Your task to perform on an android device: Go to battery settings Image 0: 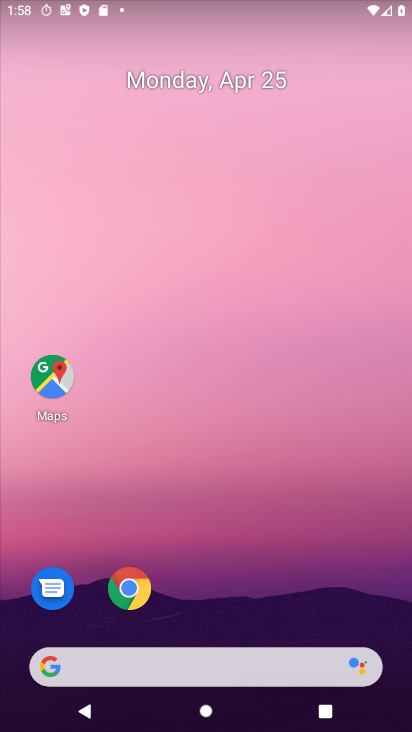
Step 0: drag from (285, 547) to (281, 132)
Your task to perform on an android device: Go to battery settings Image 1: 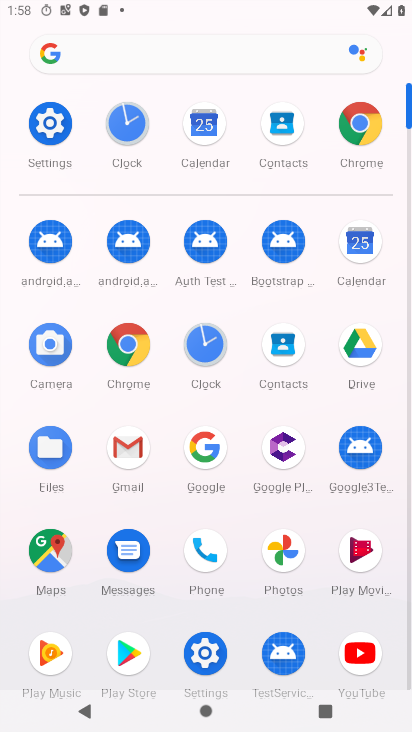
Step 1: click (54, 123)
Your task to perform on an android device: Go to battery settings Image 2: 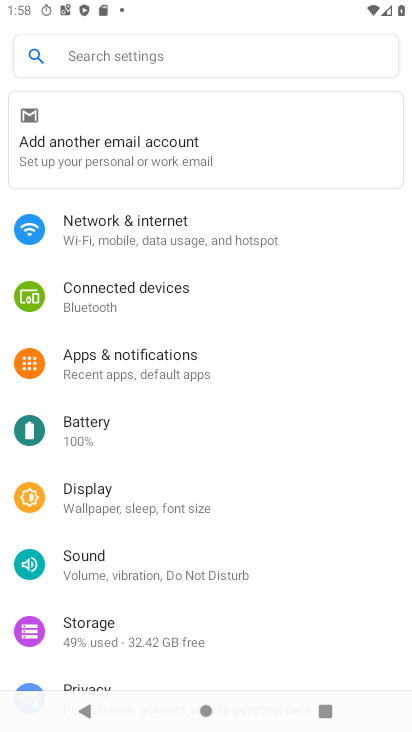
Step 2: click (152, 434)
Your task to perform on an android device: Go to battery settings Image 3: 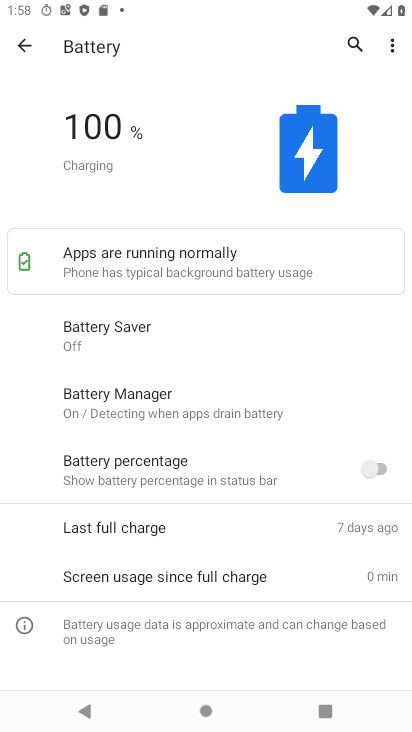
Step 3: task complete